Your task to perform on an android device: Check the news Image 0: 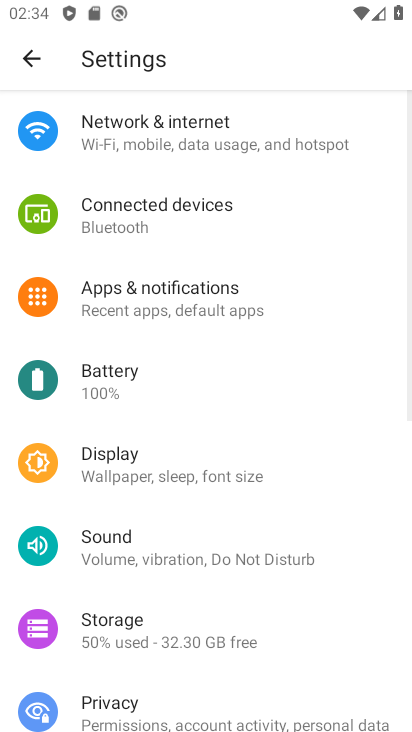
Step 0: press home button
Your task to perform on an android device: Check the news Image 1: 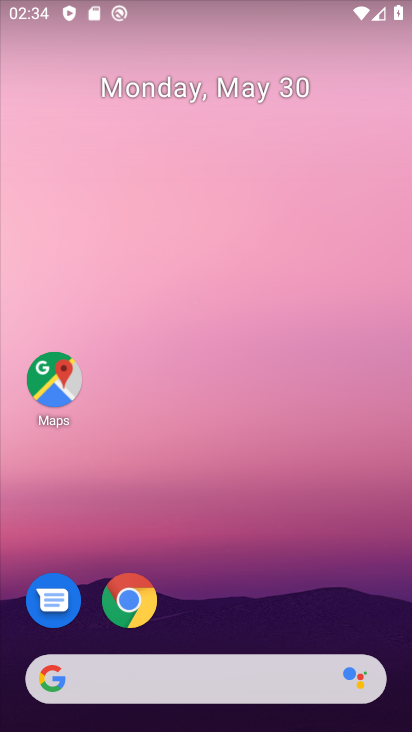
Step 1: click (192, 683)
Your task to perform on an android device: Check the news Image 2: 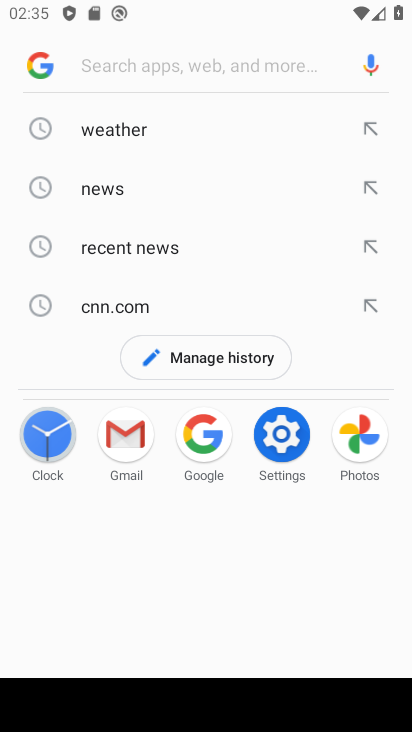
Step 2: click (131, 185)
Your task to perform on an android device: Check the news Image 3: 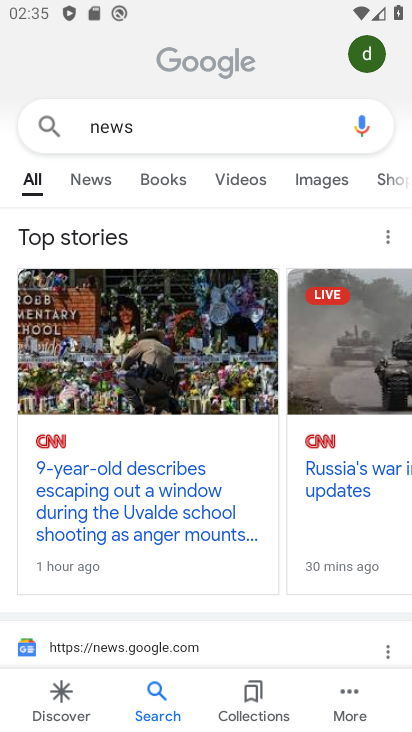
Step 3: click (92, 183)
Your task to perform on an android device: Check the news Image 4: 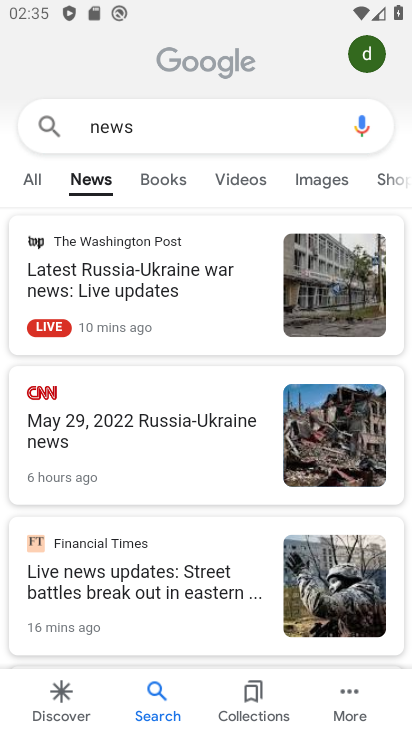
Step 4: task complete